Your task to perform on an android device: turn off sleep mode Image 0: 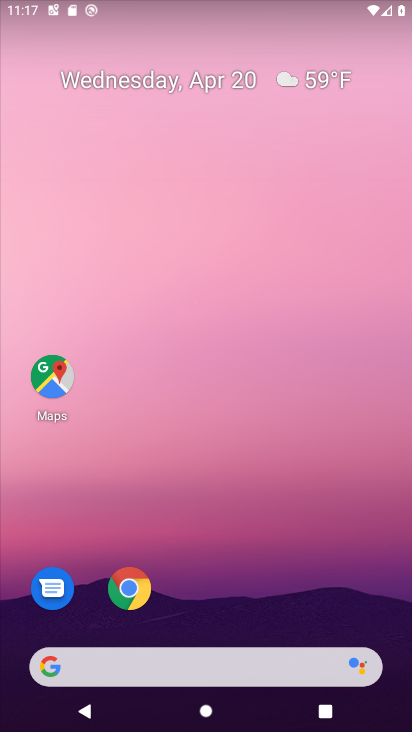
Step 0: drag from (108, 118) to (135, 705)
Your task to perform on an android device: turn off sleep mode Image 1: 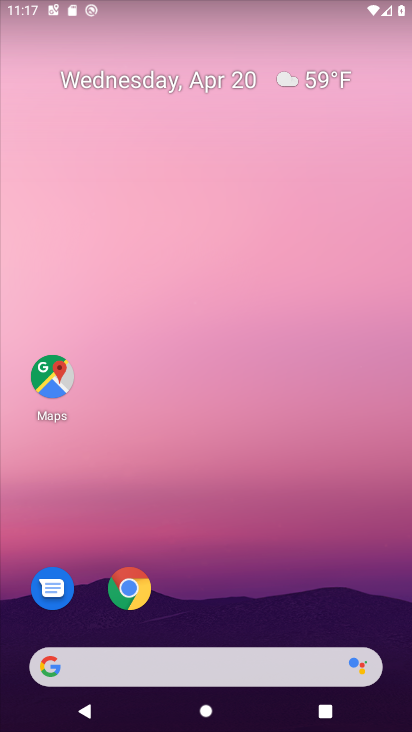
Step 1: drag from (221, 635) to (165, 266)
Your task to perform on an android device: turn off sleep mode Image 2: 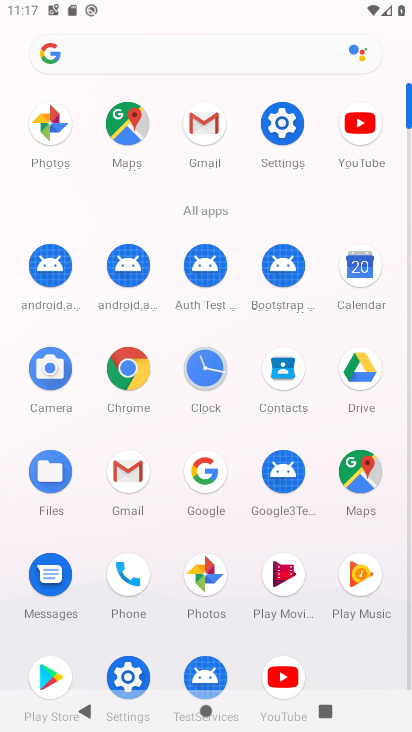
Step 2: click (294, 109)
Your task to perform on an android device: turn off sleep mode Image 3: 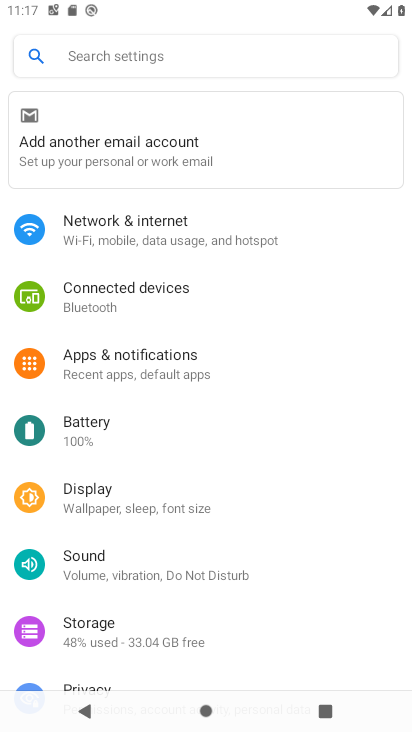
Step 3: click (219, 574)
Your task to perform on an android device: turn off sleep mode Image 4: 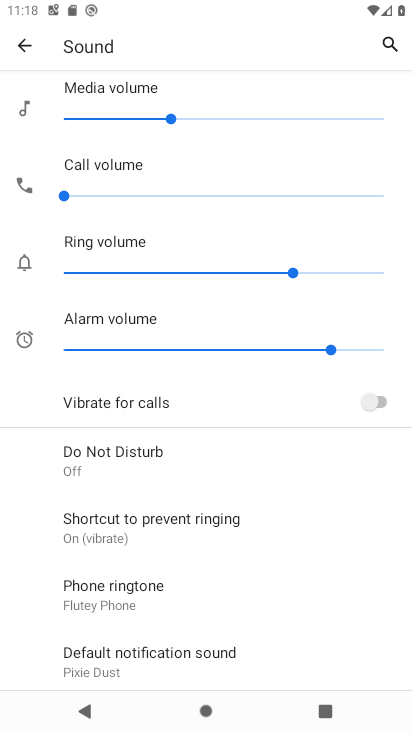
Step 4: task complete